Your task to perform on an android device: What is the recent news? Image 0: 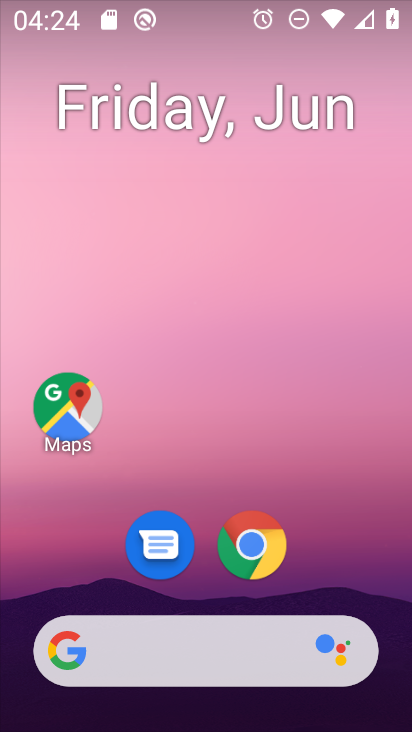
Step 0: click (238, 647)
Your task to perform on an android device: What is the recent news? Image 1: 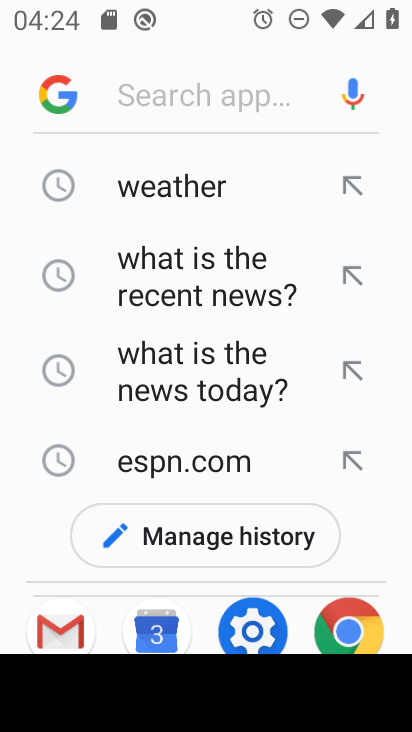
Step 1: type "recent news"
Your task to perform on an android device: What is the recent news? Image 2: 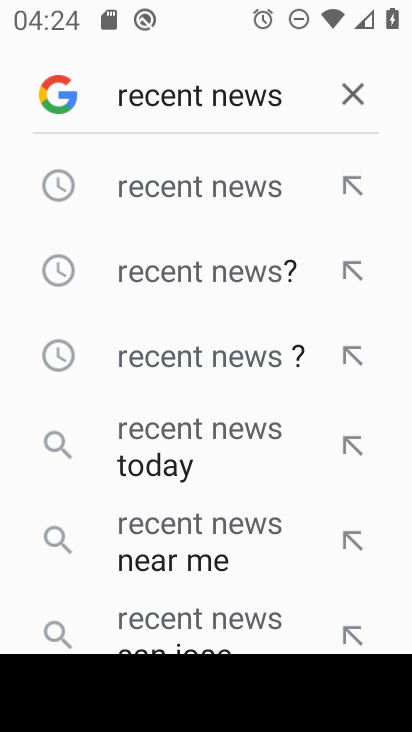
Step 2: click (242, 197)
Your task to perform on an android device: What is the recent news? Image 3: 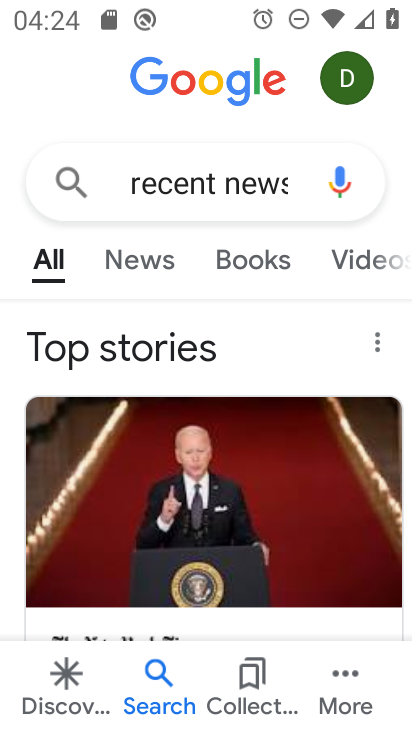
Step 3: click (133, 270)
Your task to perform on an android device: What is the recent news? Image 4: 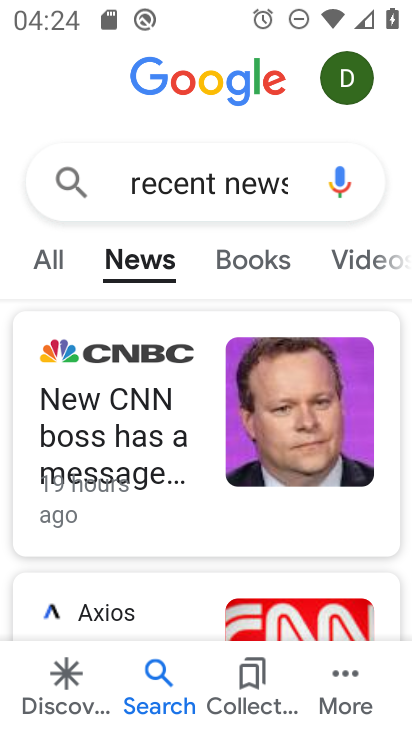
Step 4: task complete